Your task to perform on an android device: create a new album in the google photos Image 0: 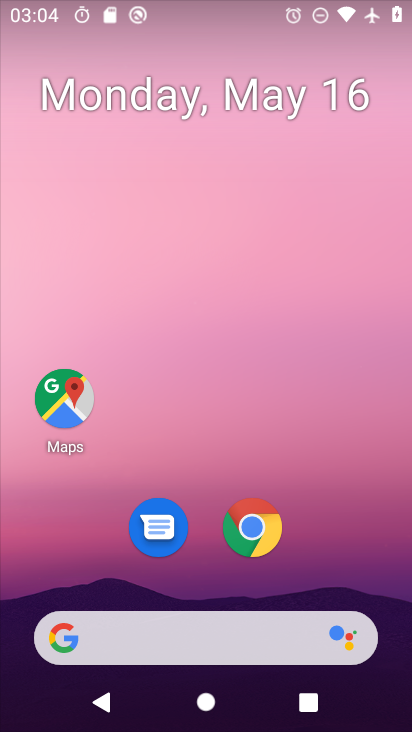
Step 0: press home button
Your task to perform on an android device: create a new album in the google photos Image 1: 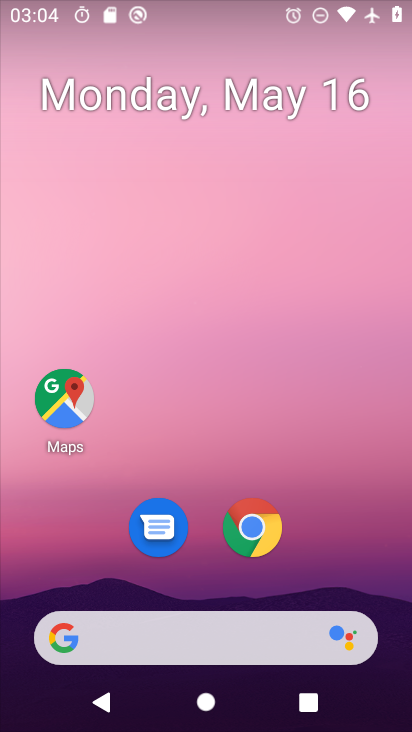
Step 1: drag from (134, 643) to (344, 169)
Your task to perform on an android device: create a new album in the google photos Image 2: 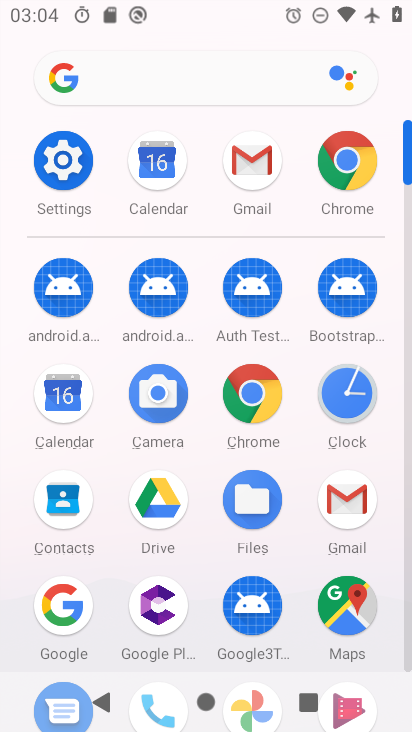
Step 2: drag from (208, 584) to (376, 195)
Your task to perform on an android device: create a new album in the google photos Image 3: 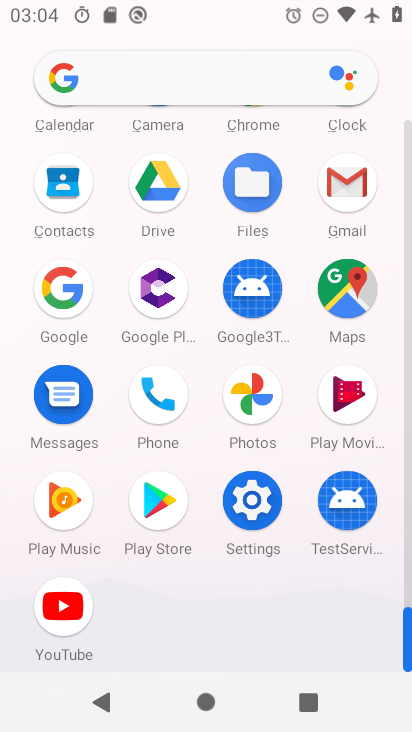
Step 3: click (254, 399)
Your task to perform on an android device: create a new album in the google photos Image 4: 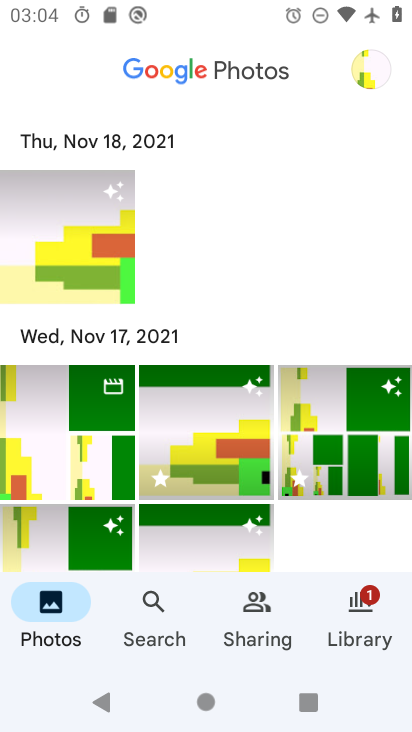
Step 4: click (354, 622)
Your task to perform on an android device: create a new album in the google photos Image 5: 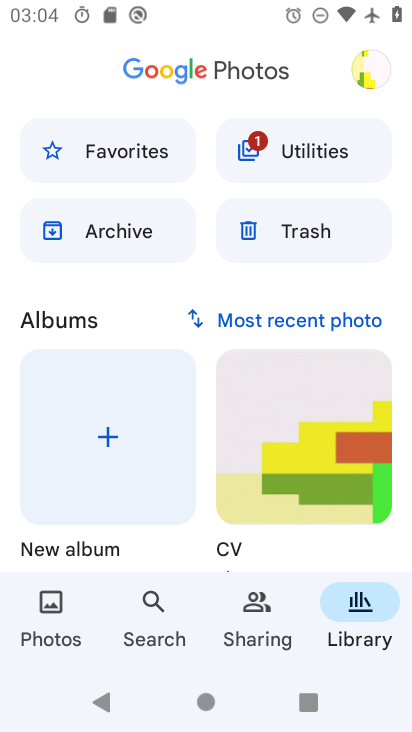
Step 5: click (111, 433)
Your task to perform on an android device: create a new album in the google photos Image 6: 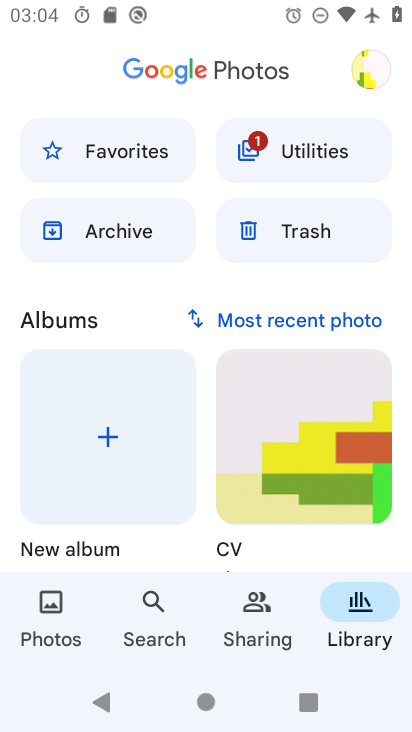
Step 6: click (107, 438)
Your task to perform on an android device: create a new album in the google photos Image 7: 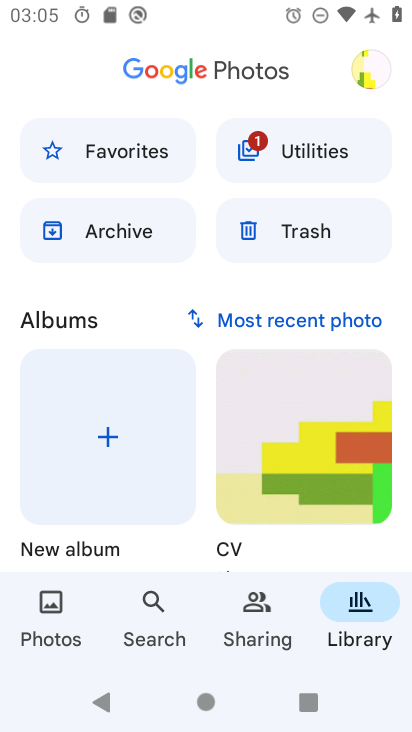
Step 7: click (103, 424)
Your task to perform on an android device: create a new album in the google photos Image 8: 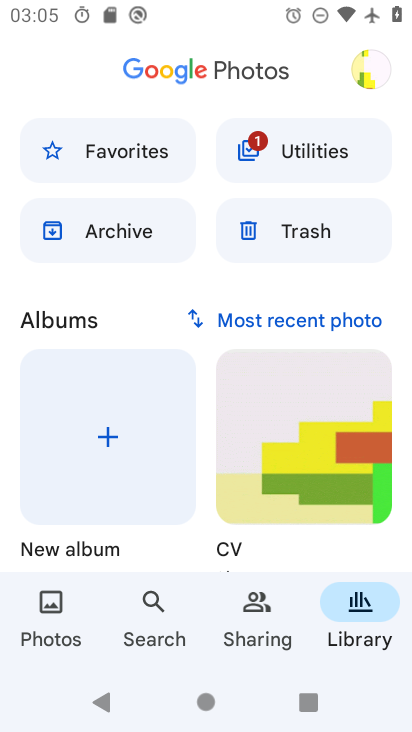
Step 8: click (108, 438)
Your task to perform on an android device: create a new album in the google photos Image 9: 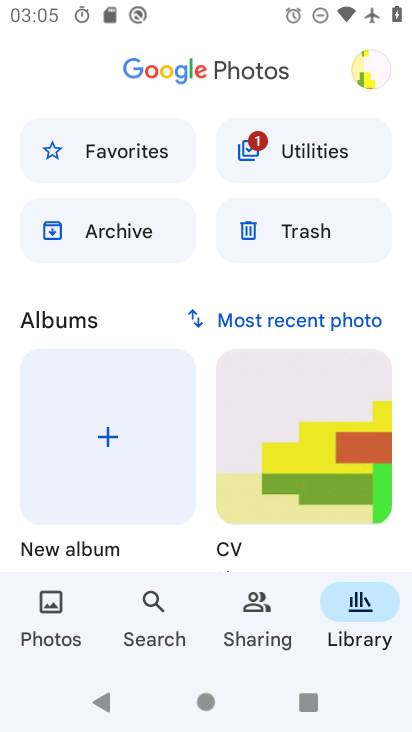
Step 9: drag from (164, 524) to (312, 132)
Your task to perform on an android device: create a new album in the google photos Image 10: 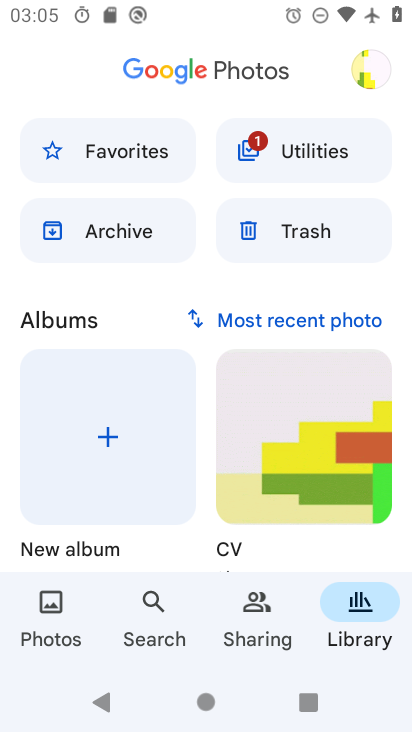
Step 10: drag from (306, 105) to (237, 560)
Your task to perform on an android device: create a new album in the google photos Image 11: 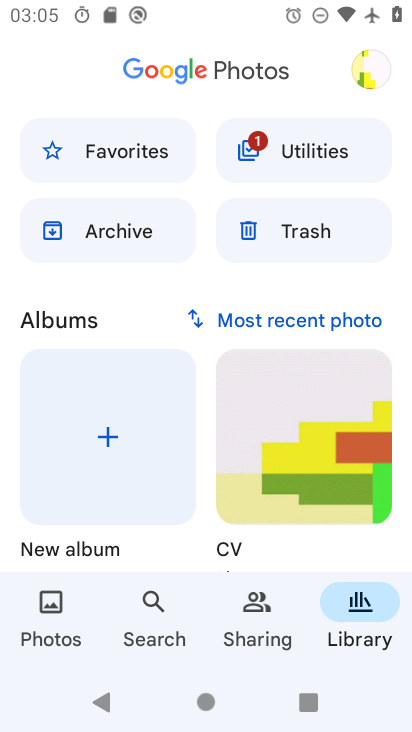
Step 11: drag from (267, 197) to (321, 96)
Your task to perform on an android device: create a new album in the google photos Image 12: 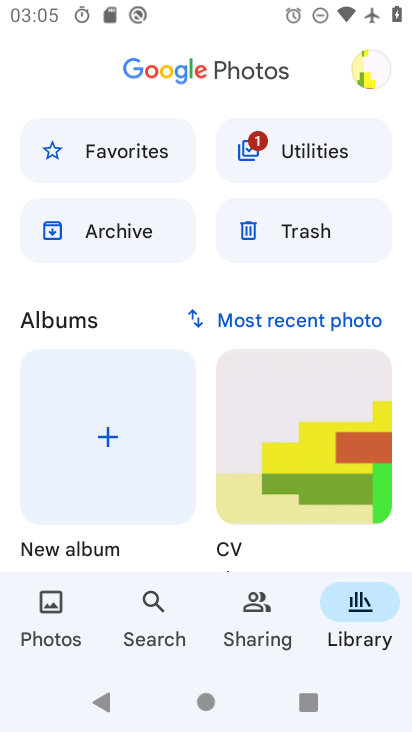
Step 12: click (100, 432)
Your task to perform on an android device: create a new album in the google photos Image 13: 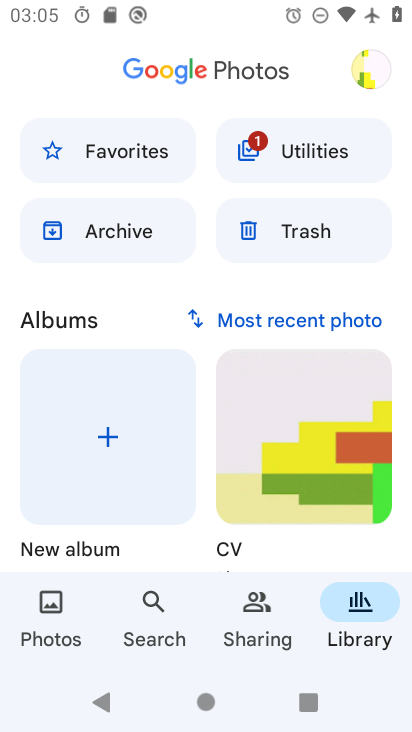
Step 13: click (100, 432)
Your task to perform on an android device: create a new album in the google photos Image 14: 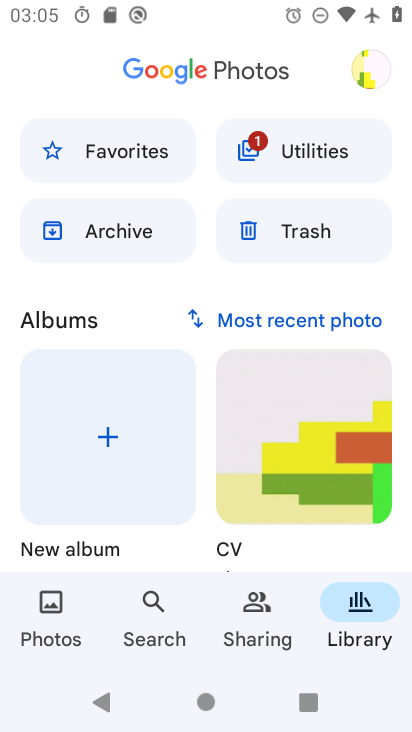
Step 14: drag from (169, 495) to (203, 487)
Your task to perform on an android device: create a new album in the google photos Image 15: 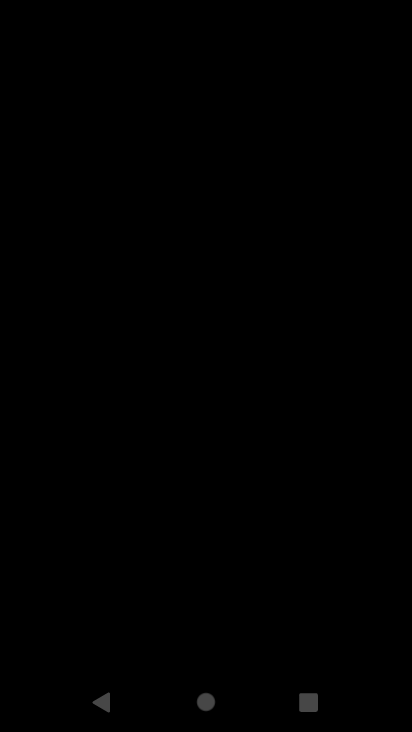
Step 15: drag from (167, 559) to (306, 200)
Your task to perform on an android device: create a new album in the google photos Image 16: 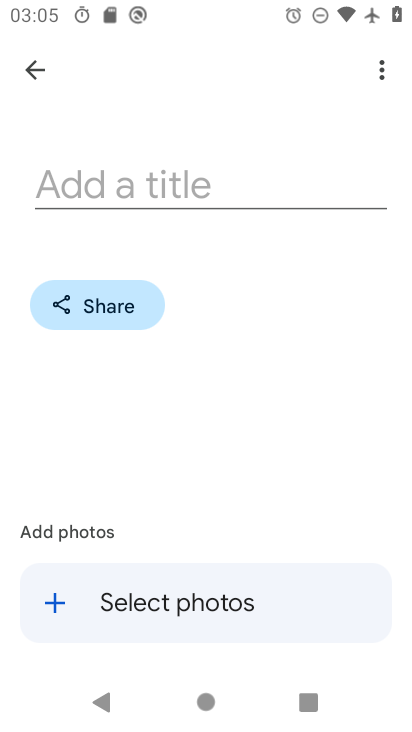
Step 16: click (155, 600)
Your task to perform on an android device: create a new album in the google photos Image 17: 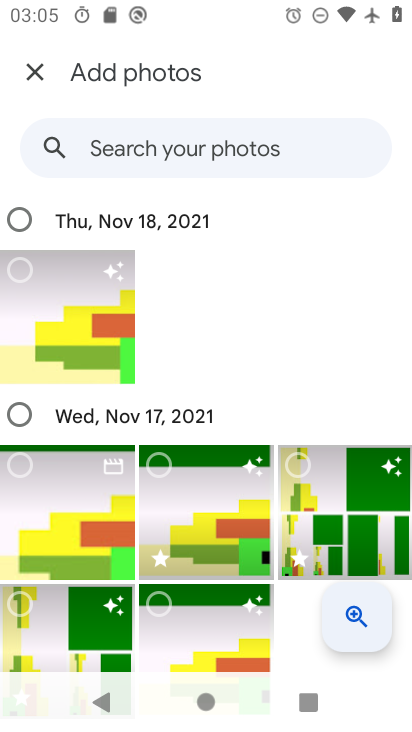
Step 17: click (74, 343)
Your task to perform on an android device: create a new album in the google photos Image 18: 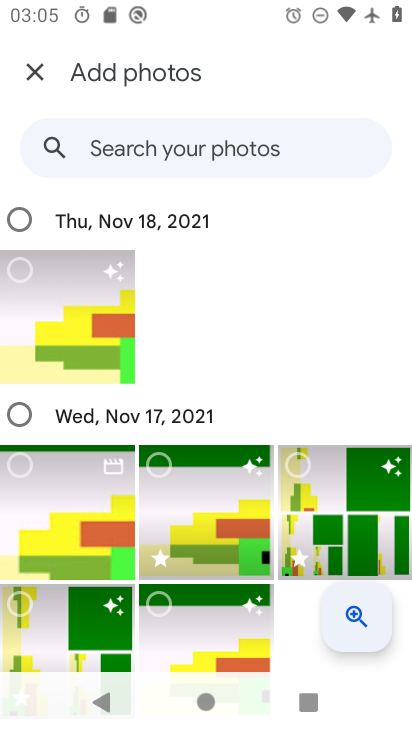
Step 18: drag from (58, 488) to (60, 600)
Your task to perform on an android device: create a new album in the google photos Image 19: 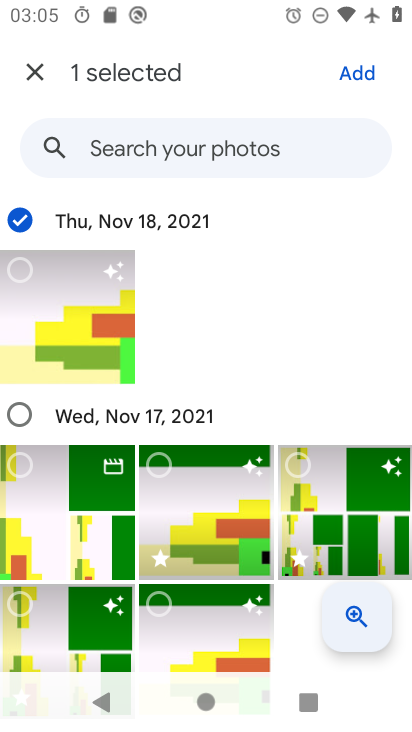
Step 19: click (43, 516)
Your task to perform on an android device: create a new album in the google photos Image 20: 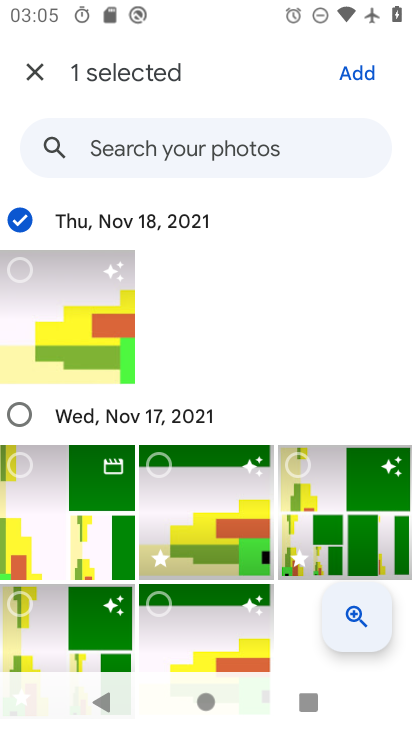
Step 20: click (24, 272)
Your task to perform on an android device: create a new album in the google photos Image 21: 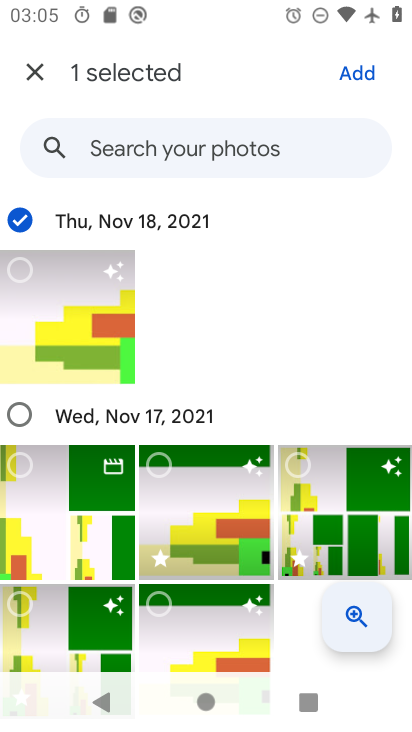
Step 21: drag from (191, 651) to (369, 128)
Your task to perform on an android device: create a new album in the google photos Image 22: 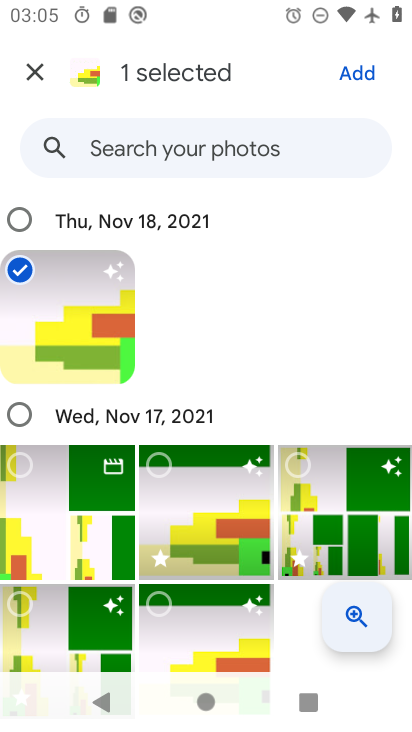
Step 22: drag from (164, 566) to (280, 327)
Your task to perform on an android device: create a new album in the google photos Image 23: 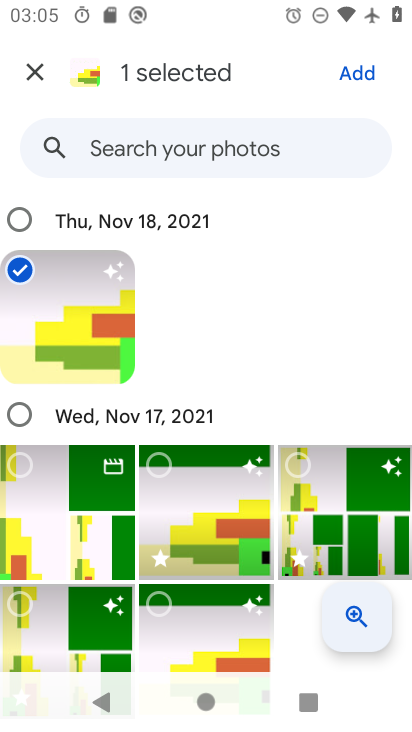
Step 23: click (19, 461)
Your task to perform on an android device: create a new album in the google photos Image 24: 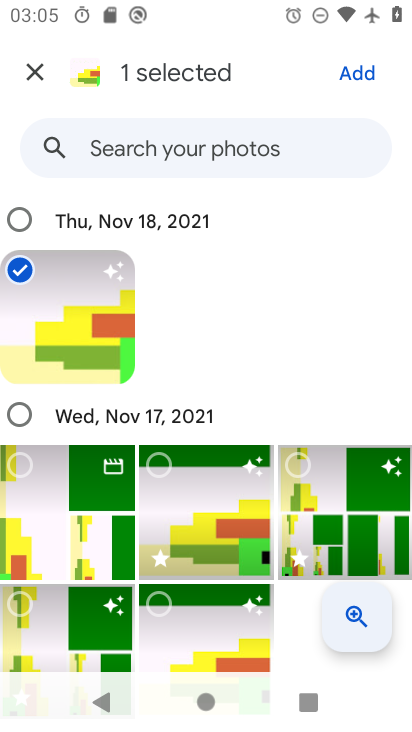
Step 24: click (18, 606)
Your task to perform on an android device: create a new album in the google photos Image 25: 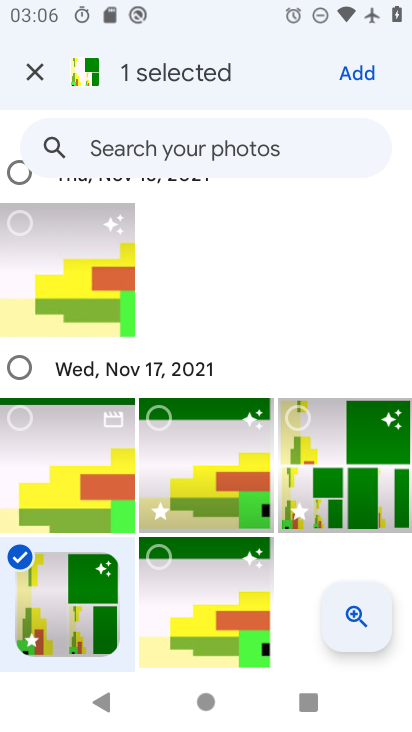
Step 25: click (24, 418)
Your task to perform on an android device: create a new album in the google photos Image 26: 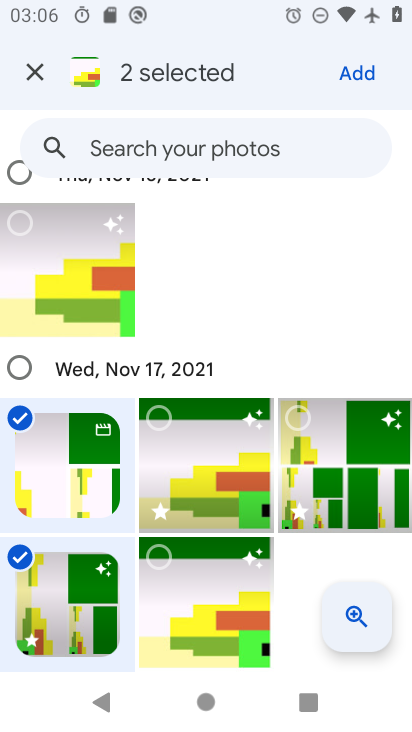
Step 26: click (21, 220)
Your task to perform on an android device: create a new album in the google photos Image 27: 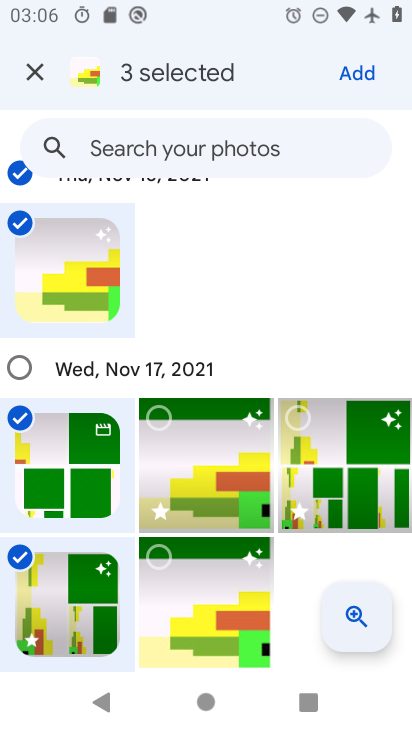
Step 27: click (357, 76)
Your task to perform on an android device: create a new album in the google photos Image 28: 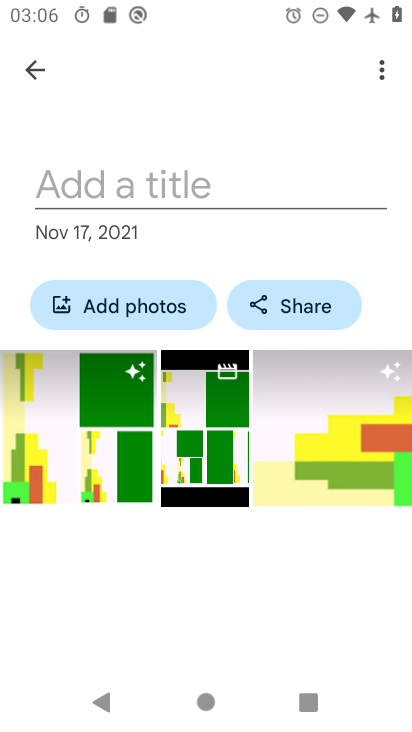
Step 28: task complete